Your task to perform on an android device: Open Youtube and go to "Your channel" Image 0: 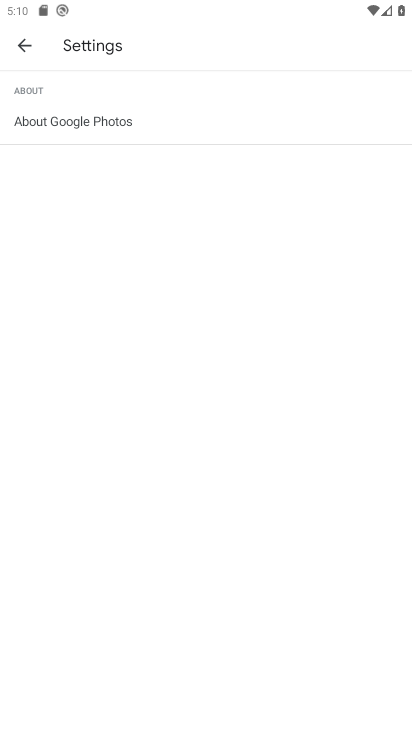
Step 0: press home button
Your task to perform on an android device: Open Youtube and go to "Your channel" Image 1: 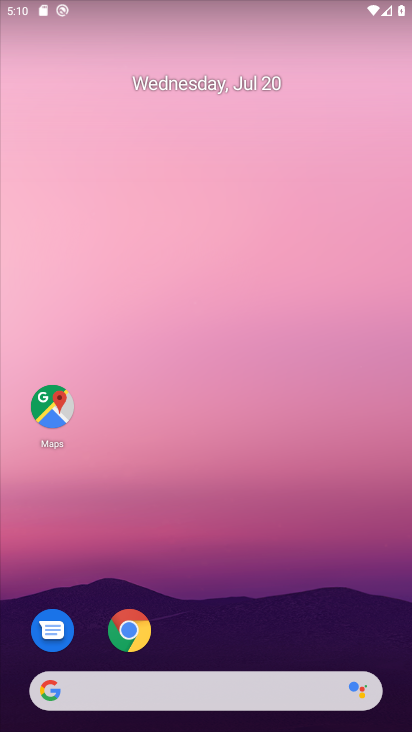
Step 1: drag from (237, 645) to (269, 119)
Your task to perform on an android device: Open Youtube and go to "Your channel" Image 2: 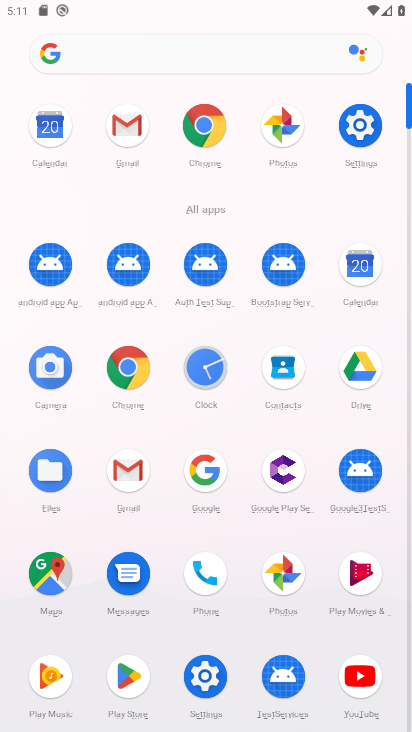
Step 2: click (358, 683)
Your task to perform on an android device: Open Youtube and go to "Your channel" Image 3: 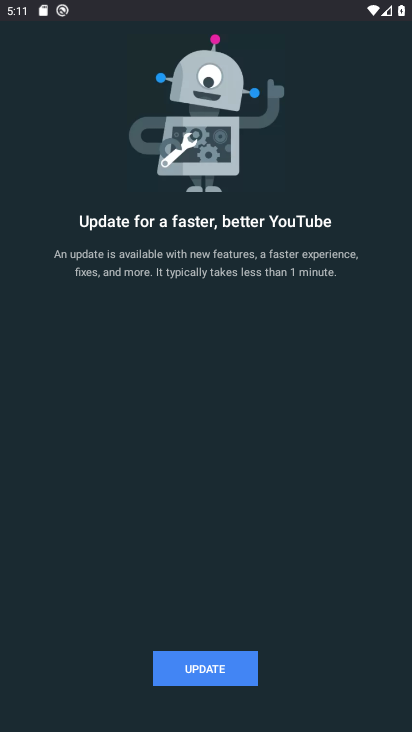
Step 3: click (224, 670)
Your task to perform on an android device: Open Youtube and go to "Your channel" Image 4: 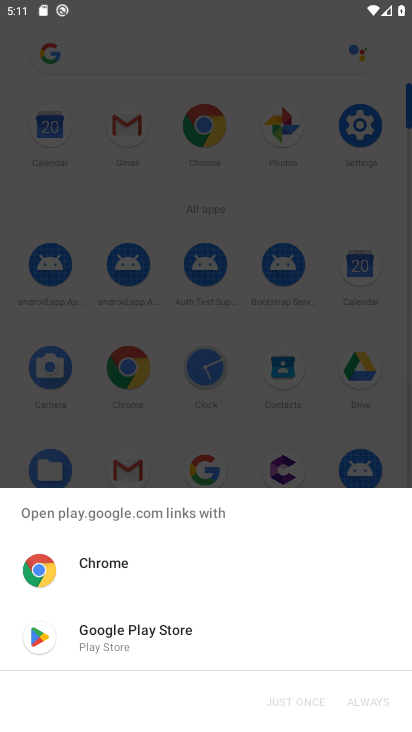
Step 4: click (102, 640)
Your task to perform on an android device: Open Youtube and go to "Your channel" Image 5: 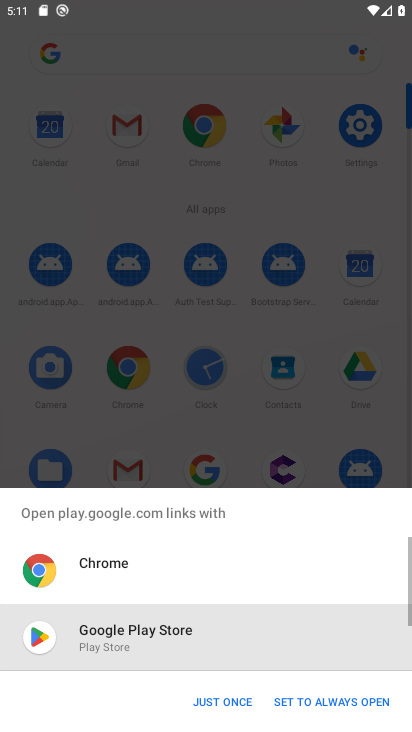
Step 5: click (210, 708)
Your task to perform on an android device: Open Youtube and go to "Your channel" Image 6: 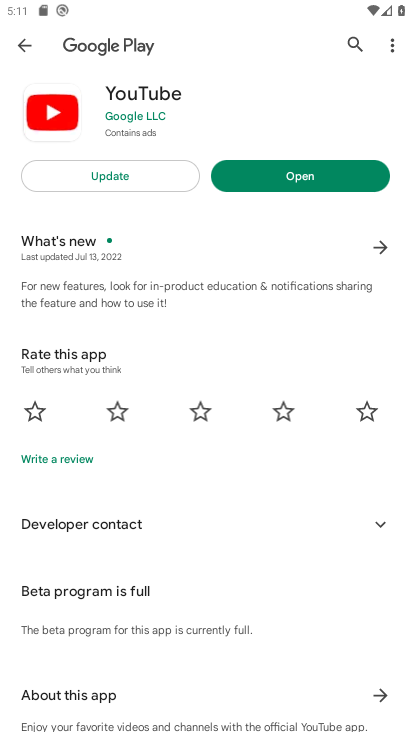
Step 6: click (130, 172)
Your task to perform on an android device: Open Youtube and go to "Your channel" Image 7: 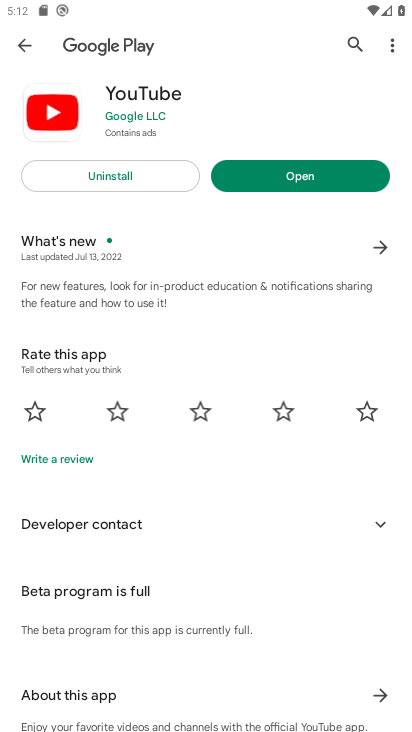
Step 7: click (229, 177)
Your task to perform on an android device: Open Youtube and go to "Your channel" Image 8: 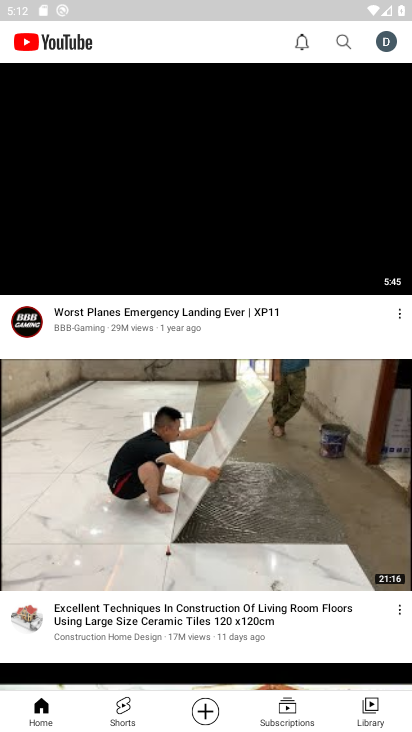
Step 8: click (390, 43)
Your task to perform on an android device: Open Youtube and go to "Your channel" Image 9: 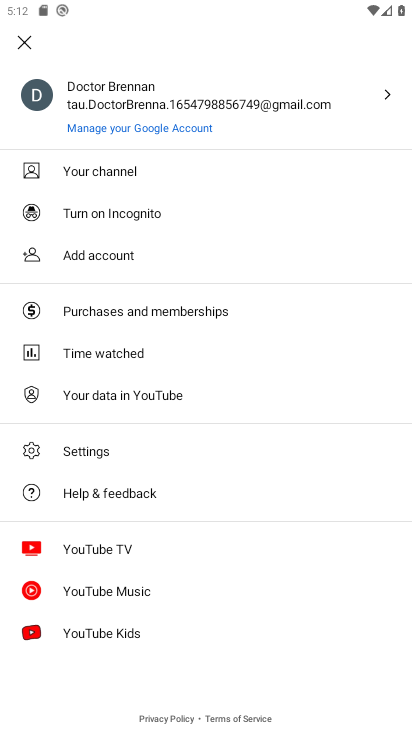
Step 9: click (92, 177)
Your task to perform on an android device: Open Youtube and go to "Your channel" Image 10: 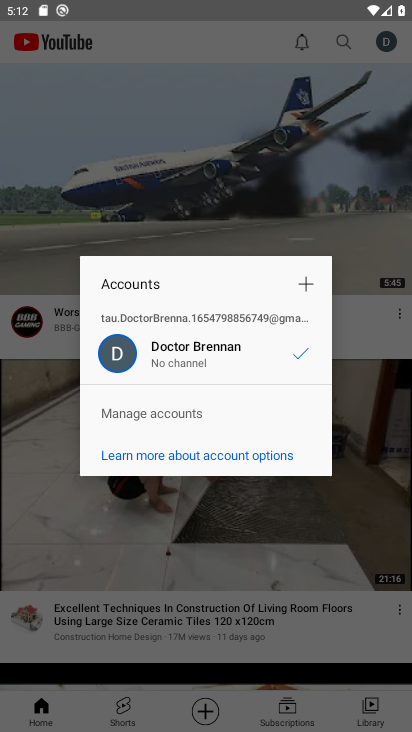
Step 10: task complete